Your task to perform on an android device: set the stopwatch Image 0: 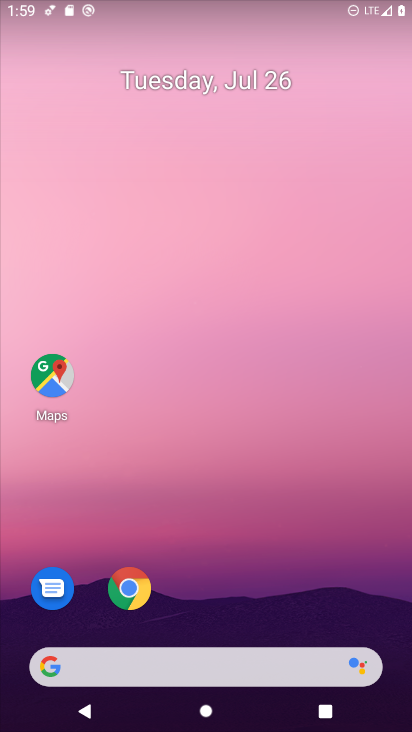
Step 0: drag from (258, 637) to (223, 100)
Your task to perform on an android device: set the stopwatch Image 1: 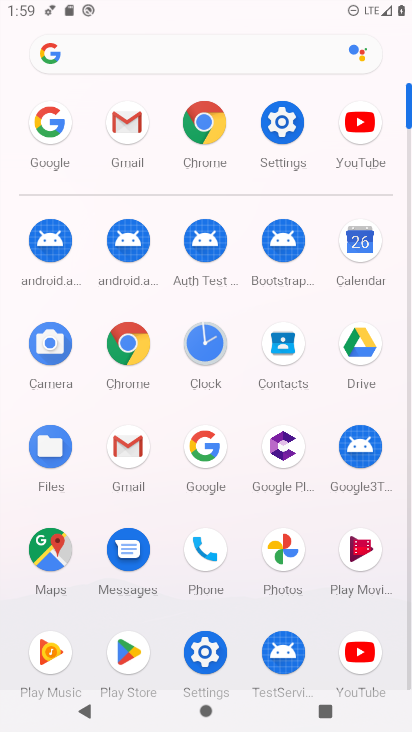
Step 1: click (219, 350)
Your task to perform on an android device: set the stopwatch Image 2: 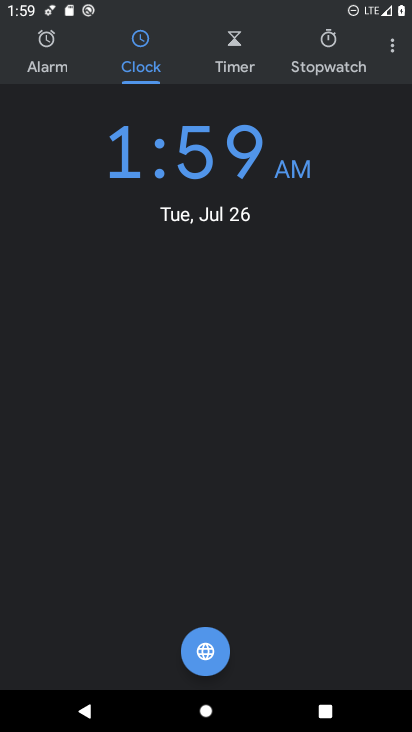
Step 2: click (308, 45)
Your task to perform on an android device: set the stopwatch Image 3: 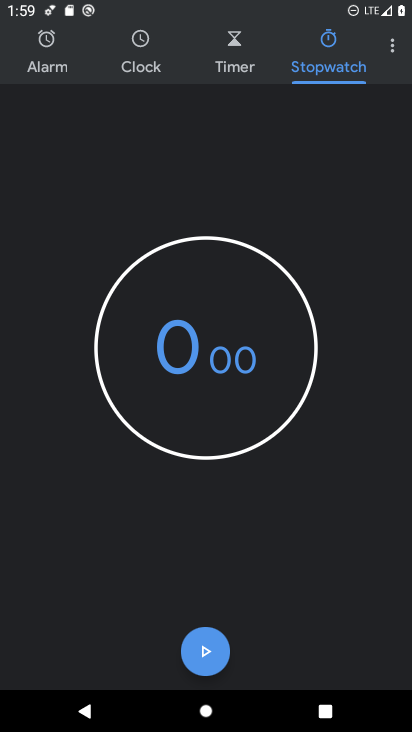
Step 3: task complete